Your task to perform on an android device: turn on the 12-hour format for clock Image 0: 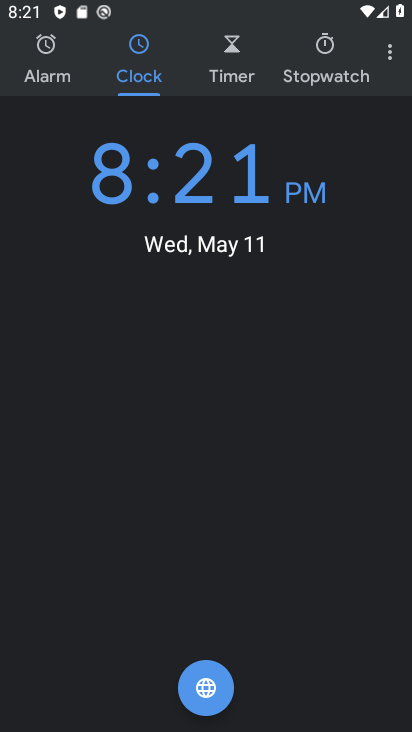
Step 0: click (386, 54)
Your task to perform on an android device: turn on the 12-hour format for clock Image 1: 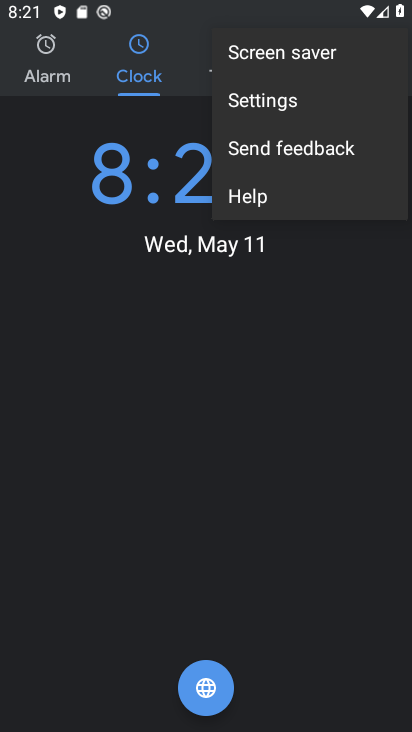
Step 1: click (266, 102)
Your task to perform on an android device: turn on the 12-hour format for clock Image 2: 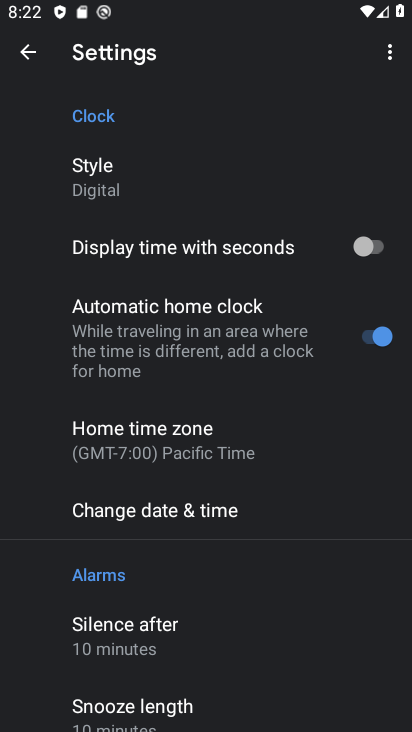
Step 2: click (183, 514)
Your task to perform on an android device: turn on the 12-hour format for clock Image 3: 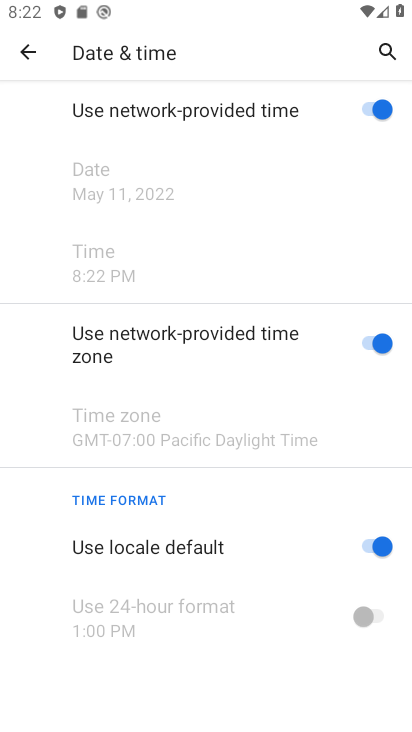
Step 3: task complete